Your task to perform on an android device: Open Google Maps and go to "Timeline" Image 0: 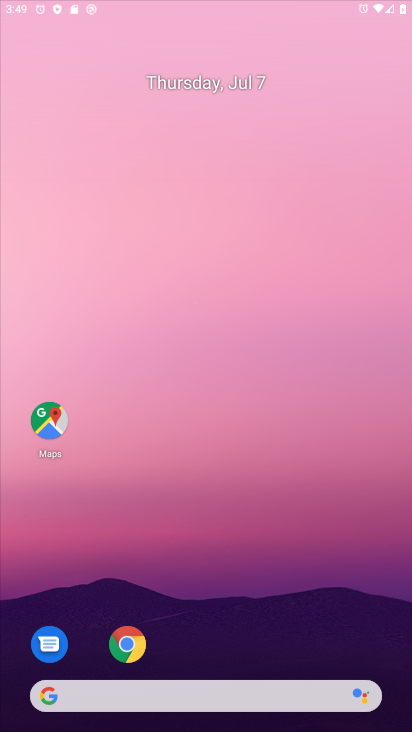
Step 0: click (284, 228)
Your task to perform on an android device: Open Google Maps and go to "Timeline" Image 1: 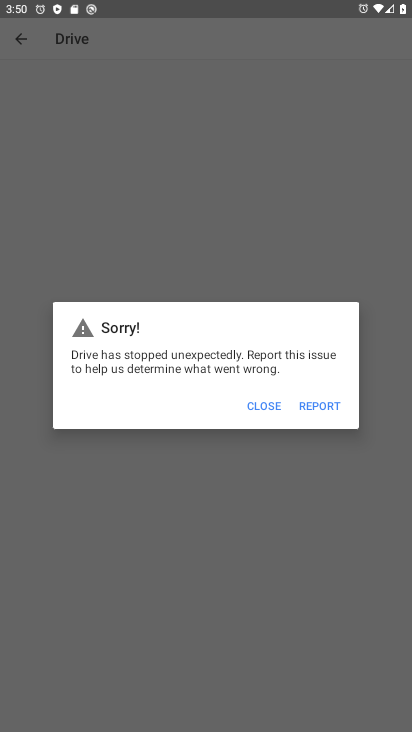
Step 1: press home button
Your task to perform on an android device: Open Google Maps and go to "Timeline" Image 2: 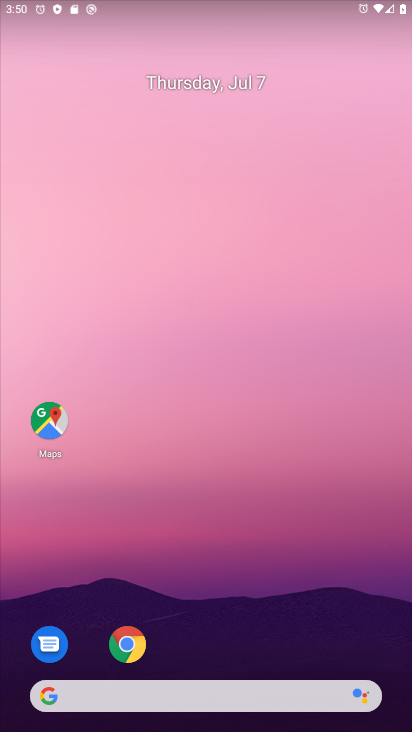
Step 2: drag from (307, 603) to (290, 108)
Your task to perform on an android device: Open Google Maps and go to "Timeline" Image 3: 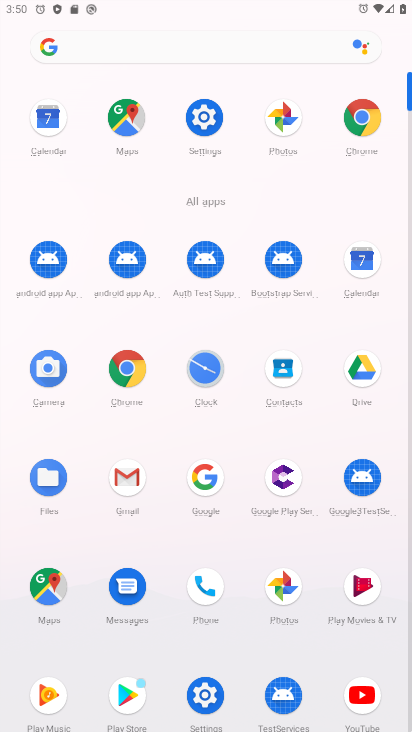
Step 3: click (125, 102)
Your task to perform on an android device: Open Google Maps and go to "Timeline" Image 4: 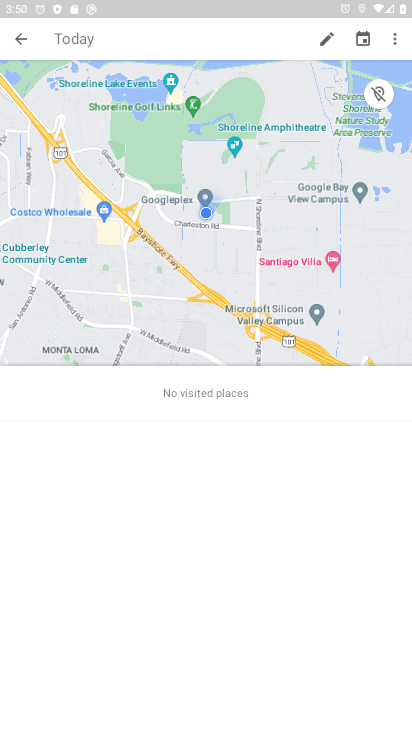
Step 4: task complete